Your task to perform on an android device: visit the assistant section in the google photos Image 0: 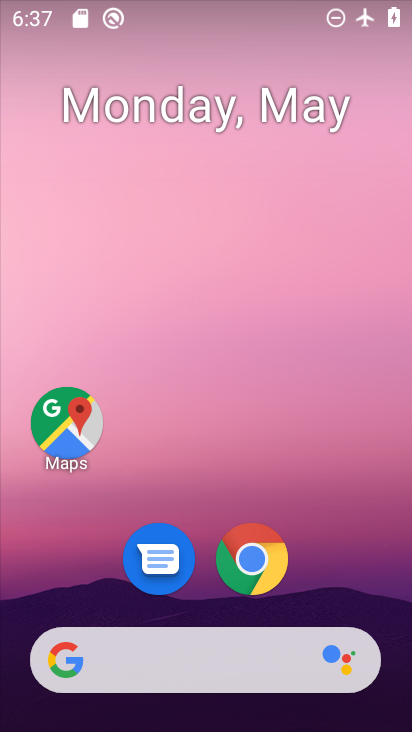
Step 0: drag from (324, 537) to (217, 180)
Your task to perform on an android device: visit the assistant section in the google photos Image 1: 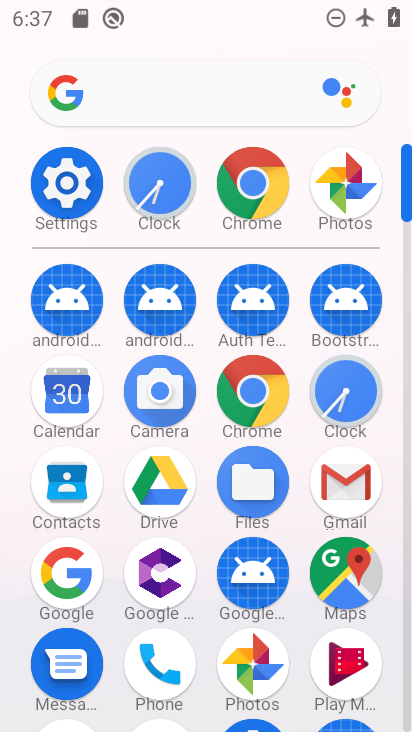
Step 1: click (329, 180)
Your task to perform on an android device: visit the assistant section in the google photos Image 2: 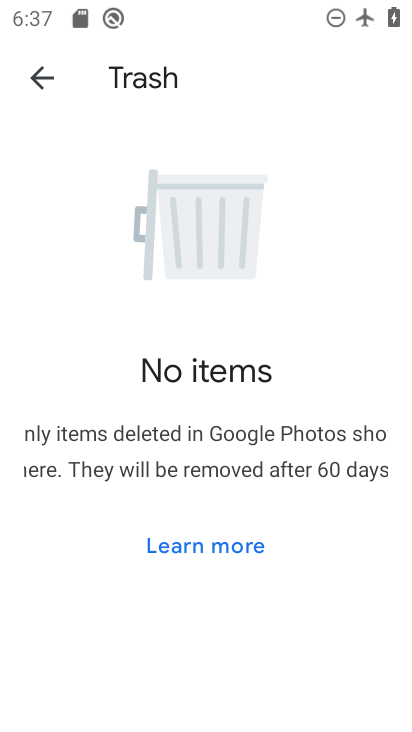
Step 2: click (40, 80)
Your task to perform on an android device: visit the assistant section in the google photos Image 3: 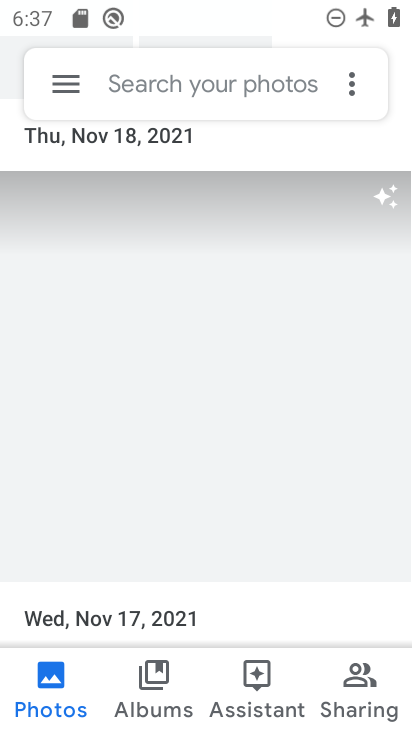
Step 3: click (255, 667)
Your task to perform on an android device: visit the assistant section in the google photos Image 4: 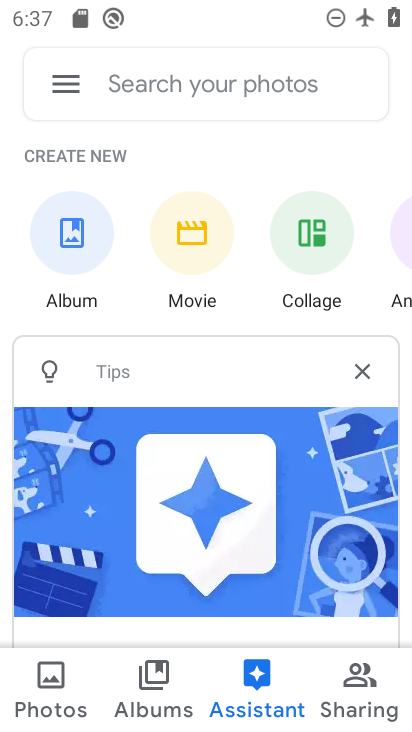
Step 4: task complete